Your task to perform on an android device: manage bookmarks in the chrome app Image 0: 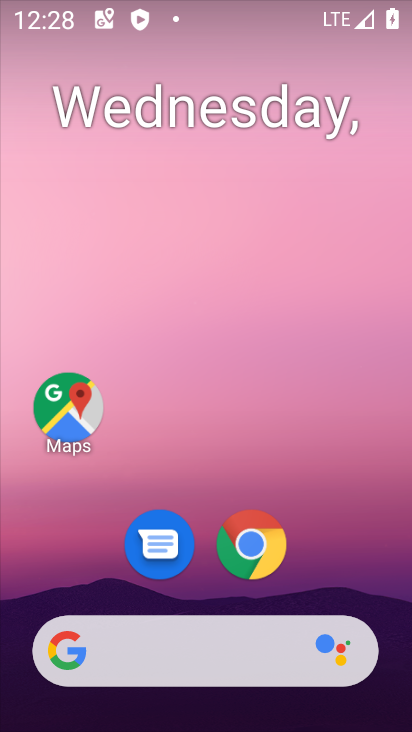
Step 0: drag from (388, 647) to (345, 21)
Your task to perform on an android device: manage bookmarks in the chrome app Image 1: 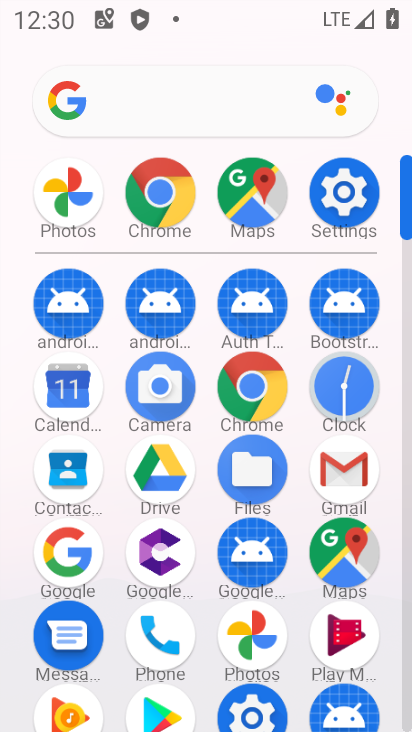
Step 1: click (174, 217)
Your task to perform on an android device: manage bookmarks in the chrome app Image 2: 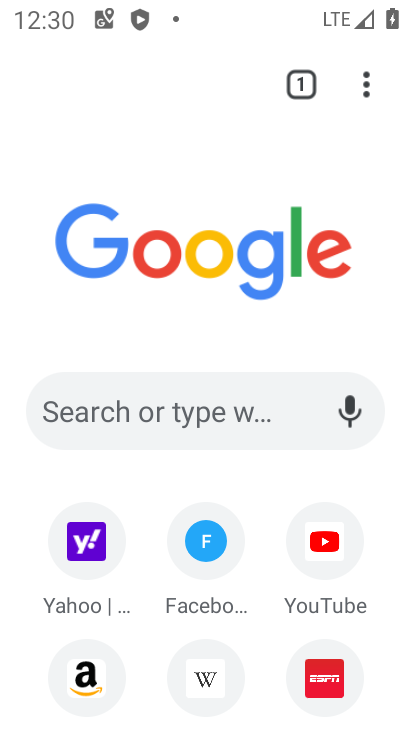
Step 2: task complete